Your task to perform on an android device: uninstall "Firefox Browser" Image 0: 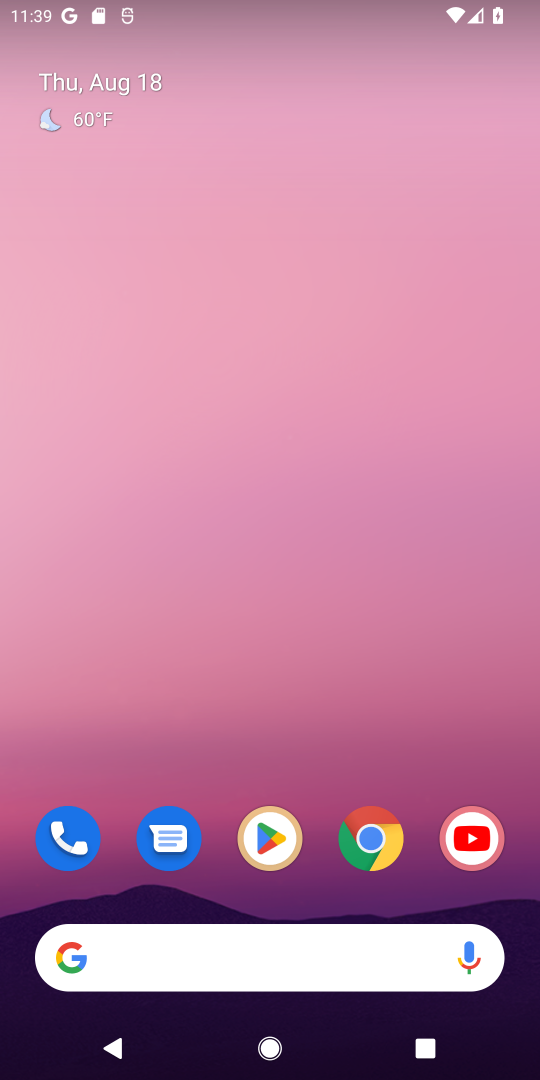
Step 0: click (275, 825)
Your task to perform on an android device: uninstall "Firefox Browser" Image 1: 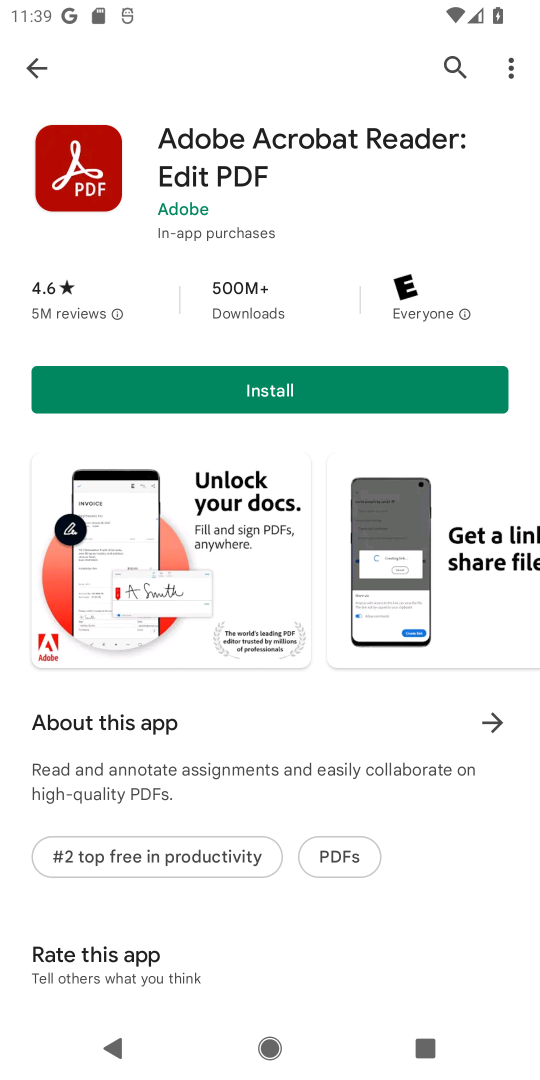
Step 1: click (444, 64)
Your task to perform on an android device: uninstall "Firefox Browser" Image 2: 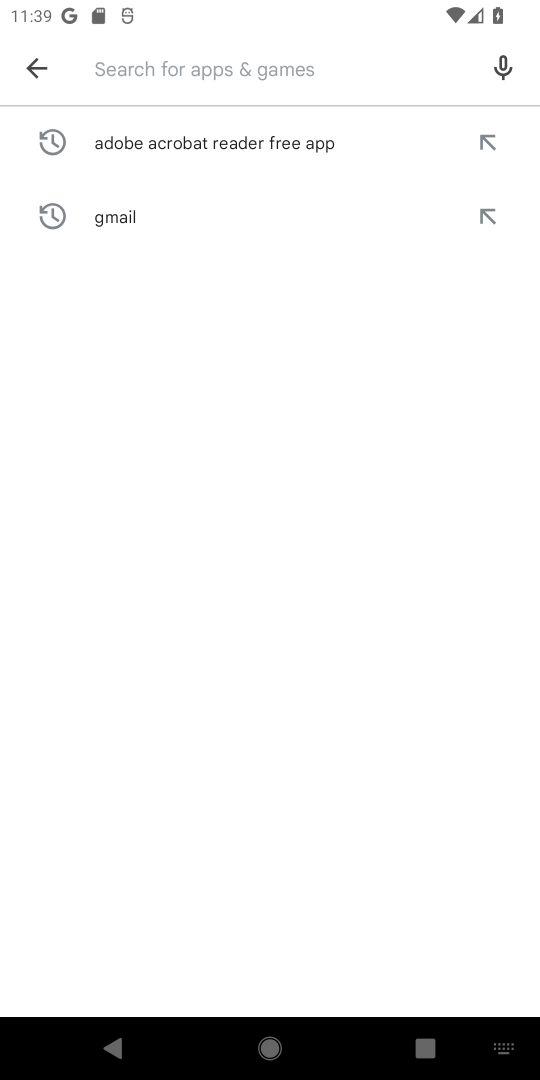
Step 2: type "Firefox Browser"
Your task to perform on an android device: uninstall "Firefox Browser" Image 3: 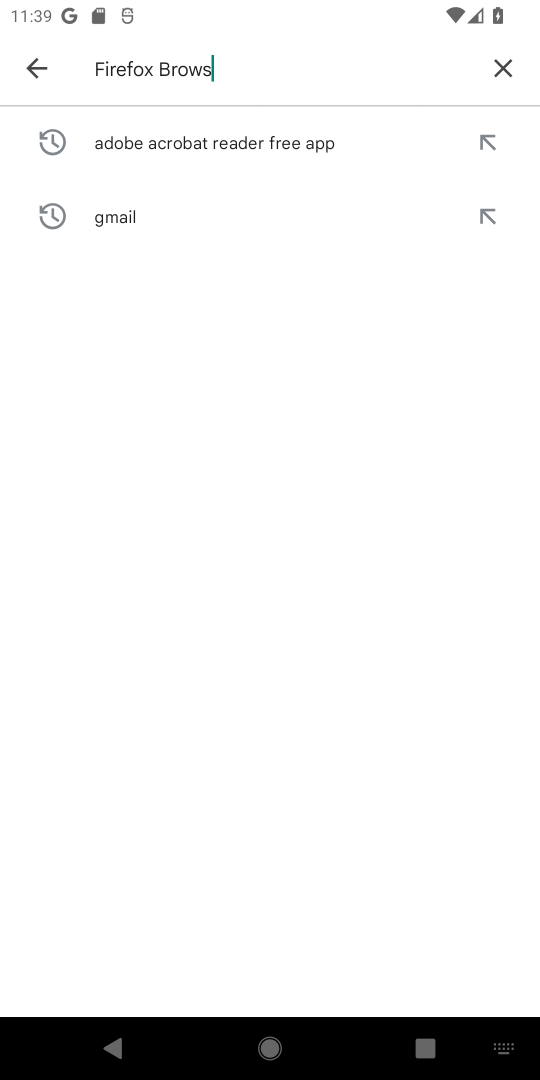
Step 3: type ""
Your task to perform on an android device: uninstall "Firefox Browser" Image 4: 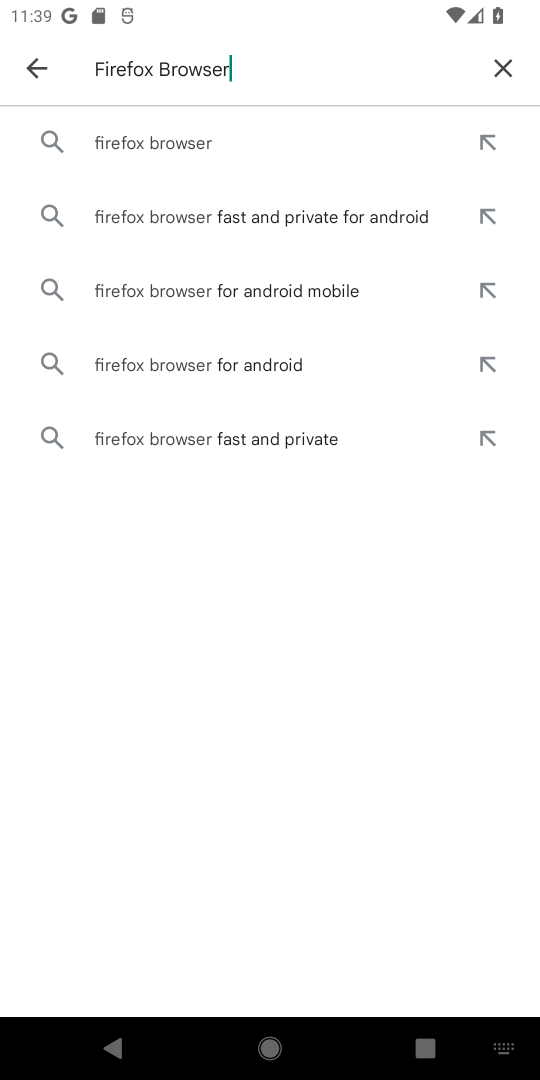
Step 4: click (208, 140)
Your task to perform on an android device: uninstall "Firefox Browser" Image 5: 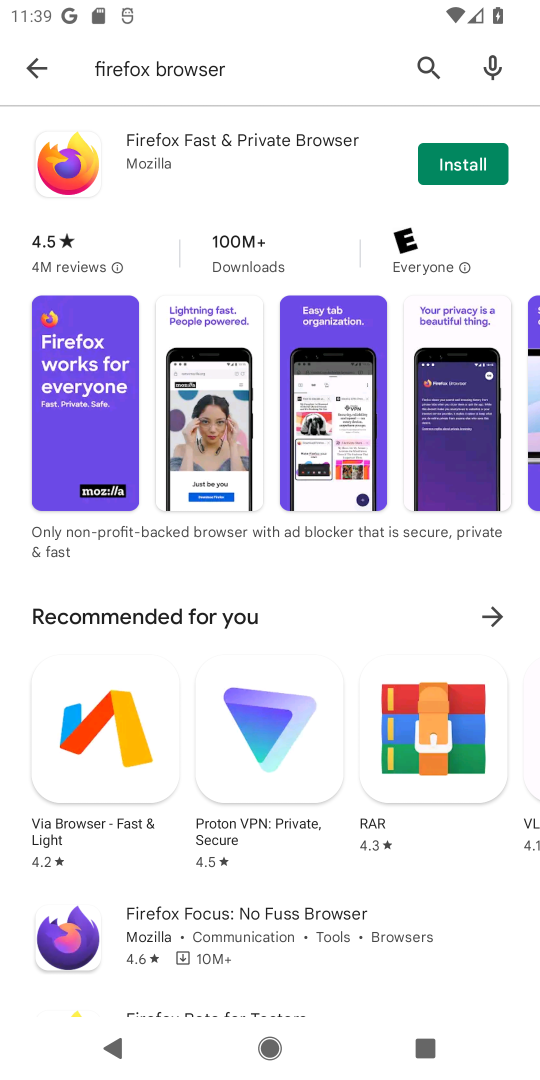
Step 5: task complete